Your task to perform on an android device: turn off javascript in the chrome app Image 0: 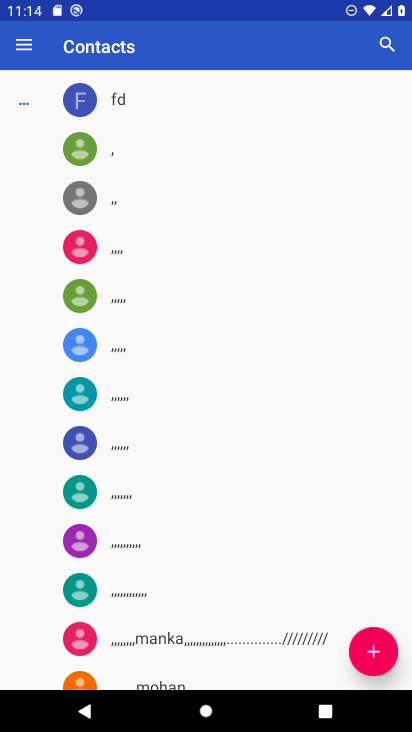
Step 0: press home button
Your task to perform on an android device: turn off javascript in the chrome app Image 1: 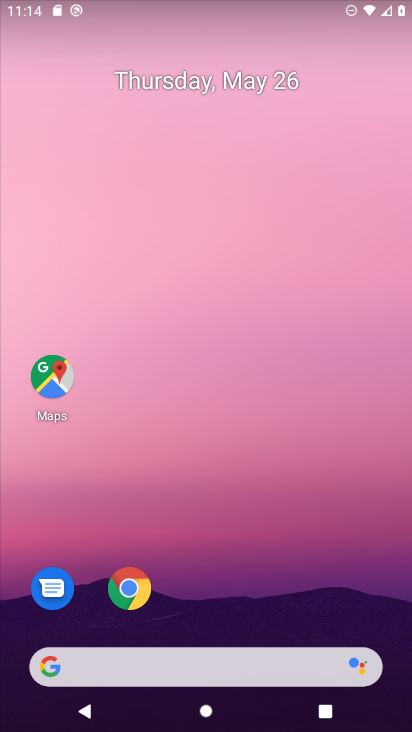
Step 1: click (129, 589)
Your task to perform on an android device: turn off javascript in the chrome app Image 2: 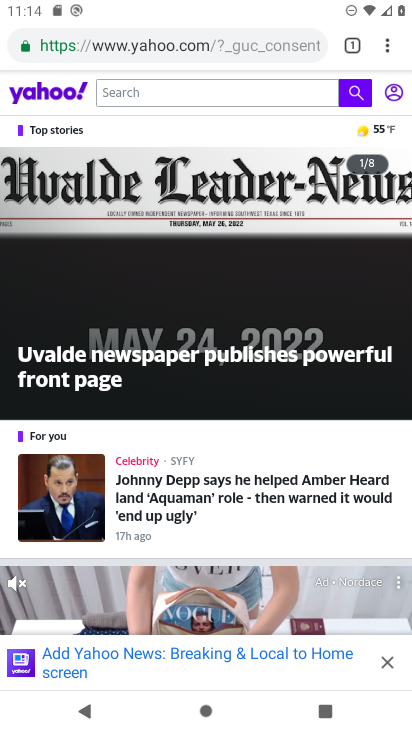
Step 2: click (385, 50)
Your task to perform on an android device: turn off javascript in the chrome app Image 3: 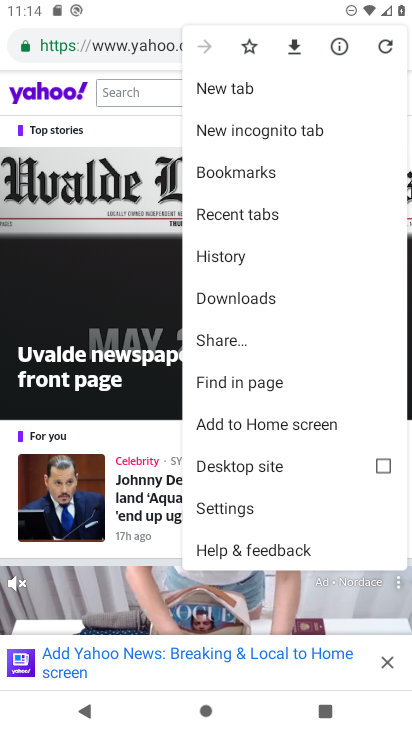
Step 3: click (235, 504)
Your task to perform on an android device: turn off javascript in the chrome app Image 4: 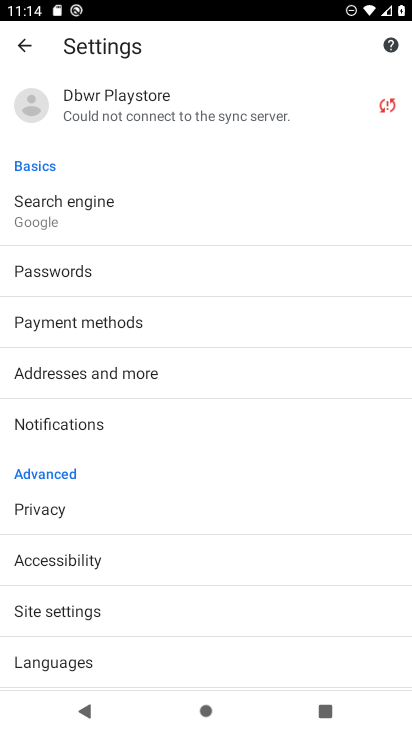
Step 4: click (68, 621)
Your task to perform on an android device: turn off javascript in the chrome app Image 5: 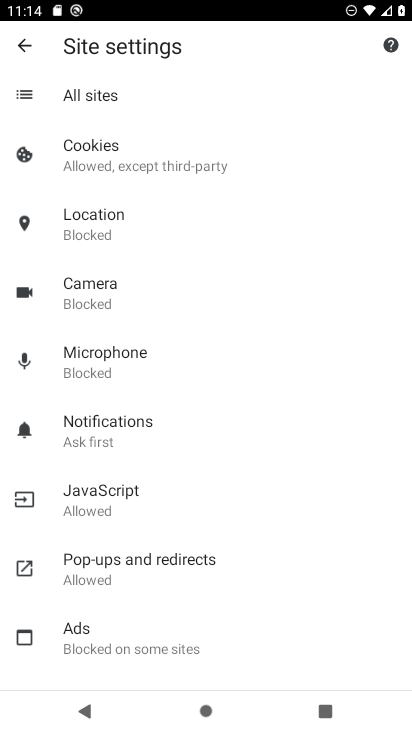
Step 5: click (91, 485)
Your task to perform on an android device: turn off javascript in the chrome app Image 6: 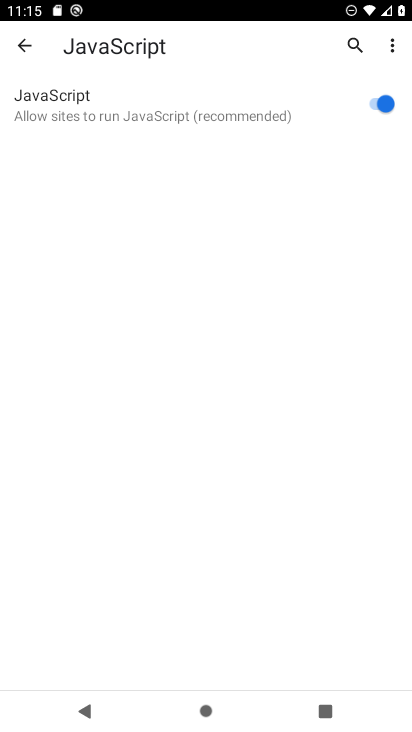
Step 6: click (370, 100)
Your task to perform on an android device: turn off javascript in the chrome app Image 7: 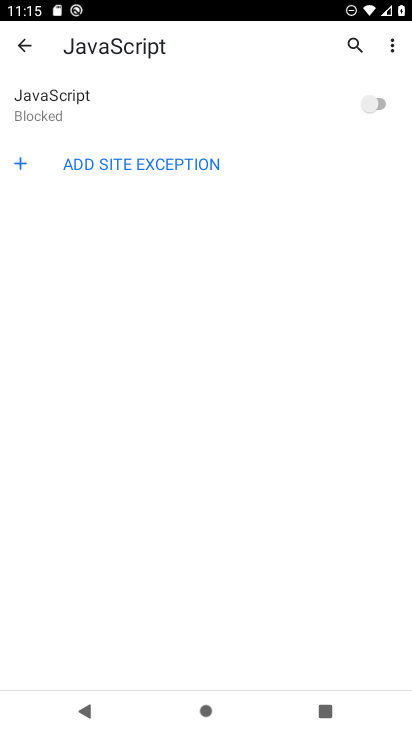
Step 7: task complete